Your task to perform on an android device: Go to internet settings Image 0: 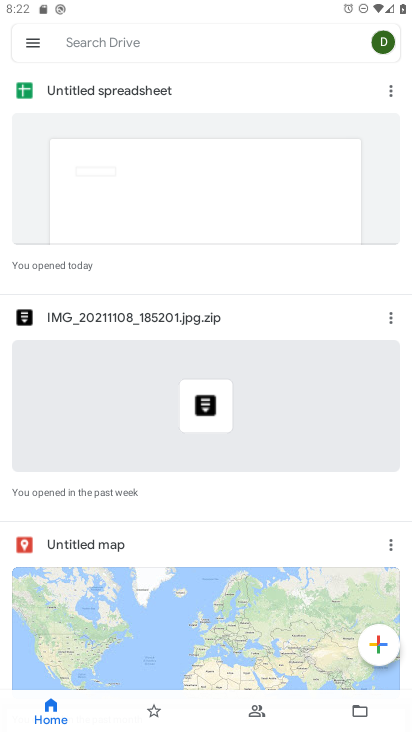
Step 0: press home button
Your task to perform on an android device: Go to internet settings Image 1: 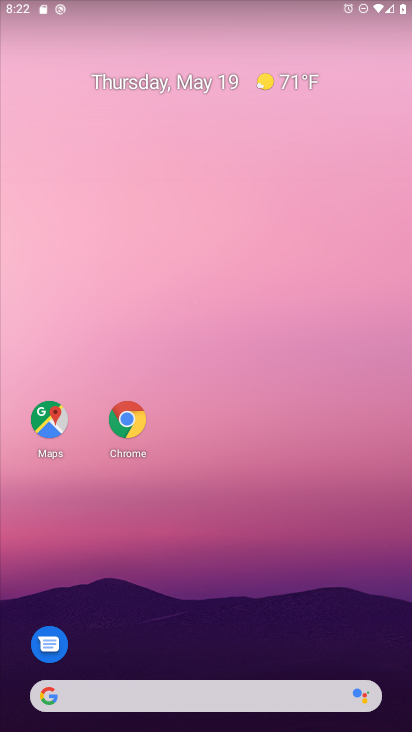
Step 1: drag from (224, 680) to (279, 267)
Your task to perform on an android device: Go to internet settings Image 2: 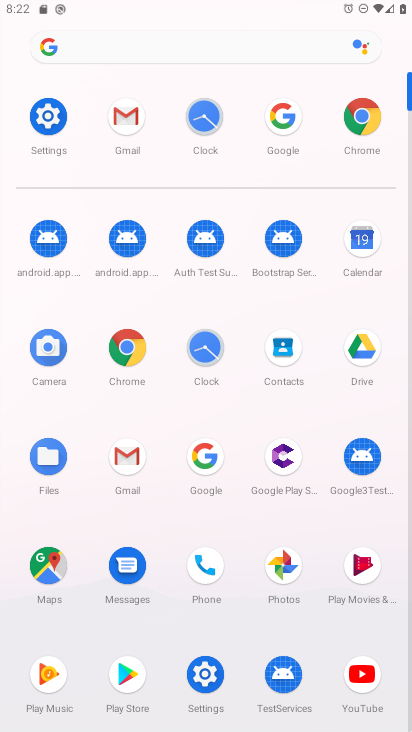
Step 2: click (54, 121)
Your task to perform on an android device: Go to internet settings Image 3: 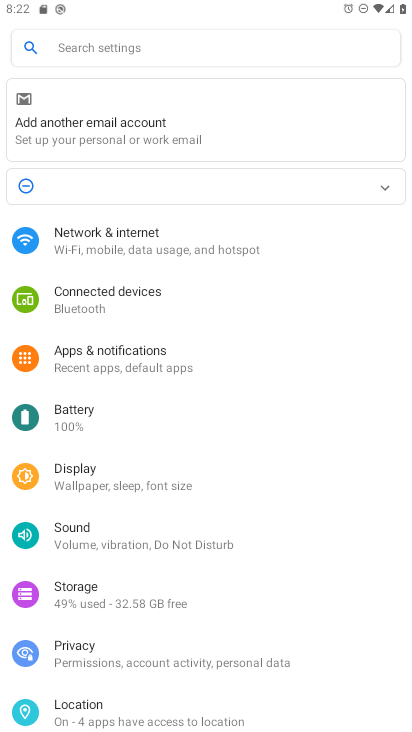
Step 3: click (126, 249)
Your task to perform on an android device: Go to internet settings Image 4: 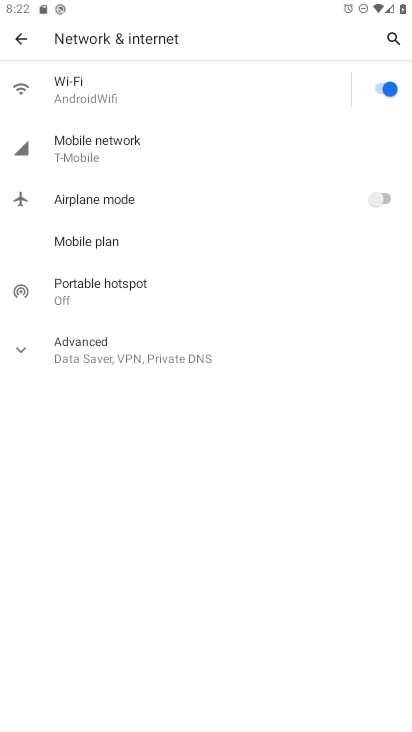
Step 4: click (105, 352)
Your task to perform on an android device: Go to internet settings Image 5: 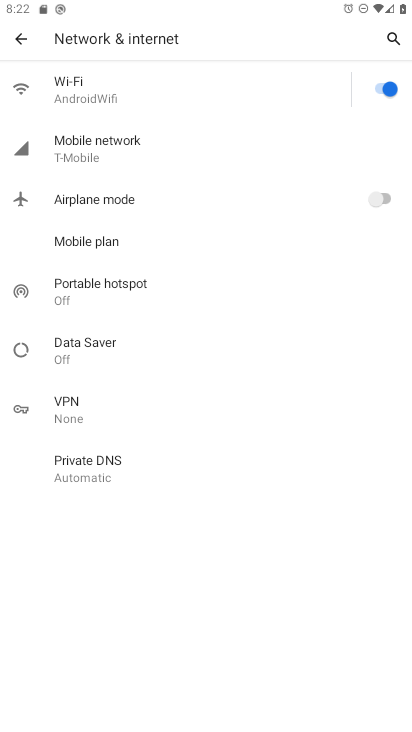
Step 5: task complete